Your task to perform on an android device: turn off notifications settings in the gmail app Image 0: 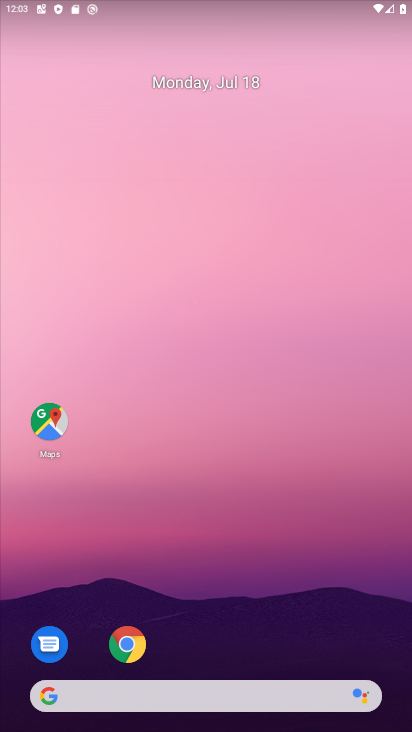
Step 0: drag from (231, 437) to (182, 102)
Your task to perform on an android device: turn off notifications settings in the gmail app Image 1: 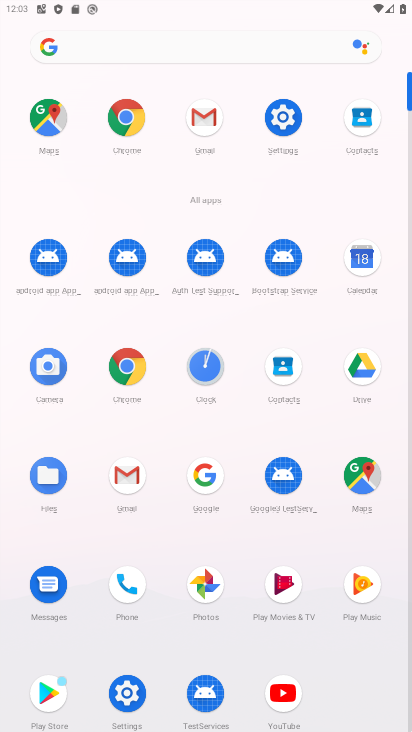
Step 1: click (210, 120)
Your task to perform on an android device: turn off notifications settings in the gmail app Image 2: 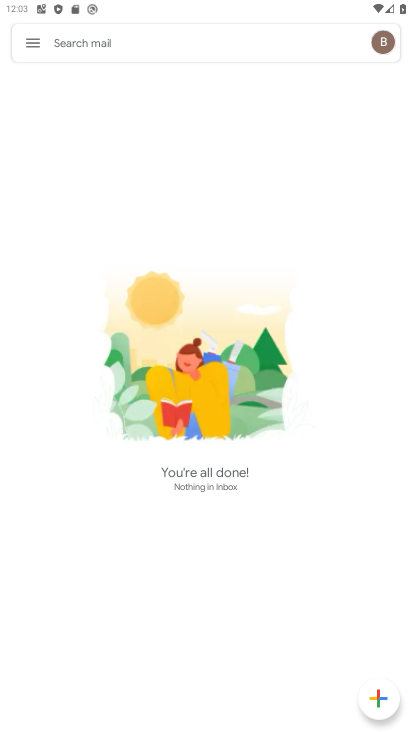
Step 2: click (38, 47)
Your task to perform on an android device: turn off notifications settings in the gmail app Image 3: 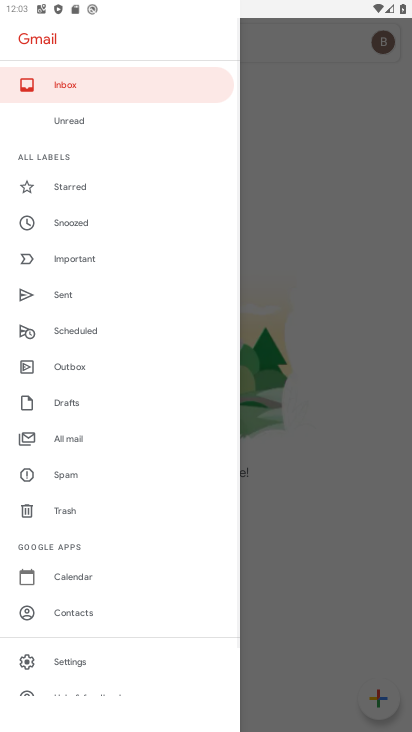
Step 3: drag from (71, 644) to (101, 259)
Your task to perform on an android device: turn off notifications settings in the gmail app Image 4: 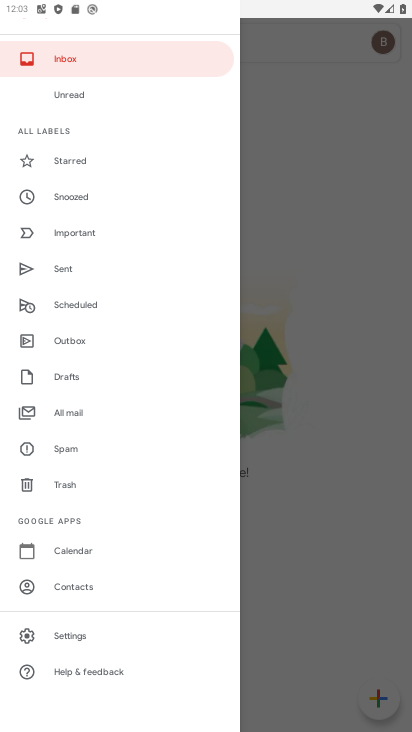
Step 4: click (62, 634)
Your task to perform on an android device: turn off notifications settings in the gmail app Image 5: 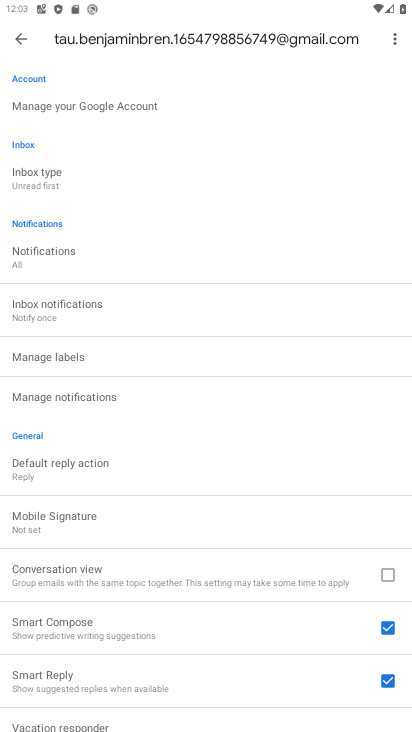
Step 5: drag from (188, 165) to (203, 350)
Your task to perform on an android device: turn off notifications settings in the gmail app Image 6: 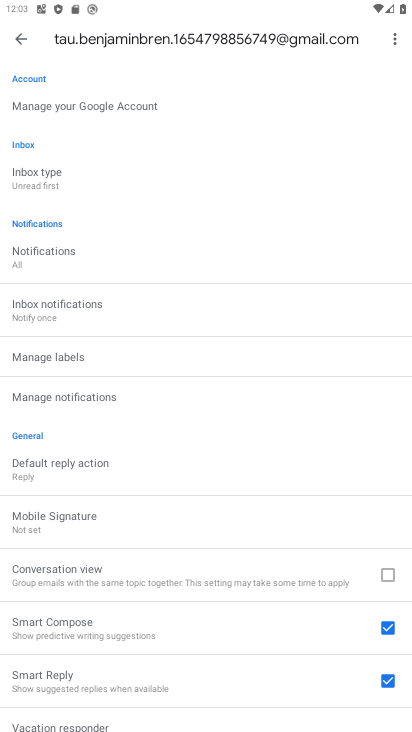
Step 6: click (88, 401)
Your task to perform on an android device: turn off notifications settings in the gmail app Image 7: 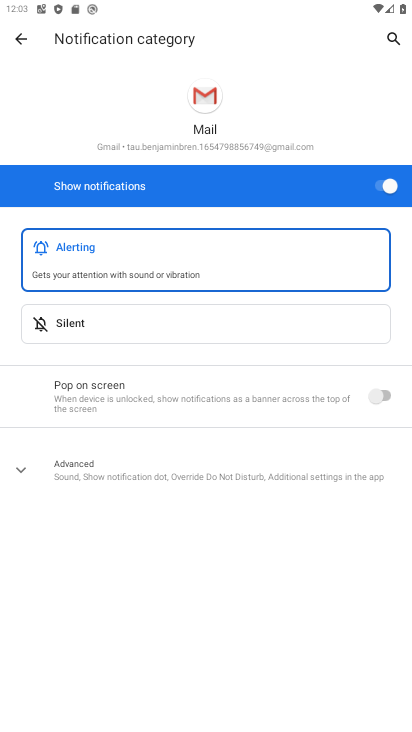
Step 7: click (392, 183)
Your task to perform on an android device: turn off notifications settings in the gmail app Image 8: 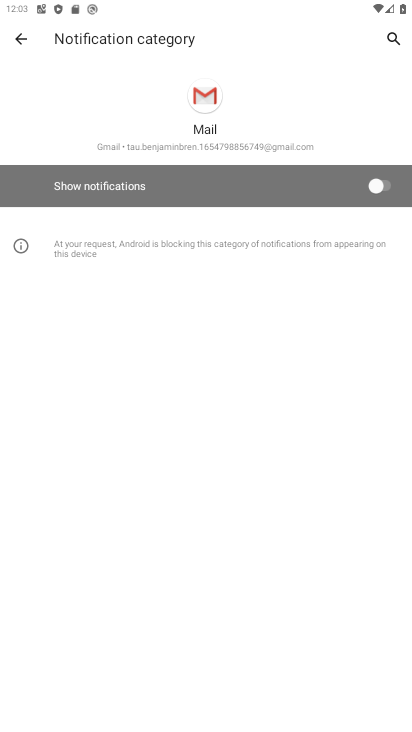
Step 8: task complete